Your task to perform on an android device: open app "Grab" Image 0: 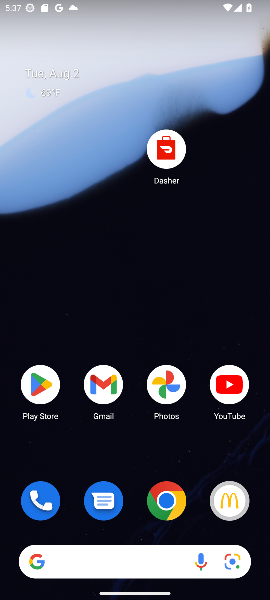
Step 0: click (44, 394)
Your task to perform on an android device: open app "Grab" Image 1: 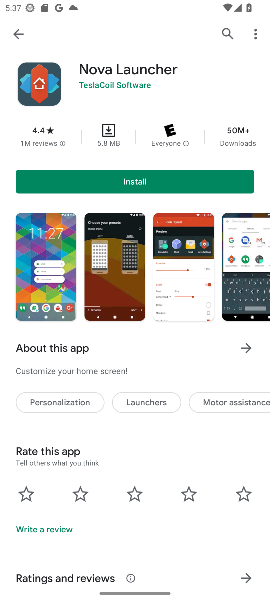
Step 1: click (216, 27)
Your task to perform on an android device: open app "Grab" Image 2: 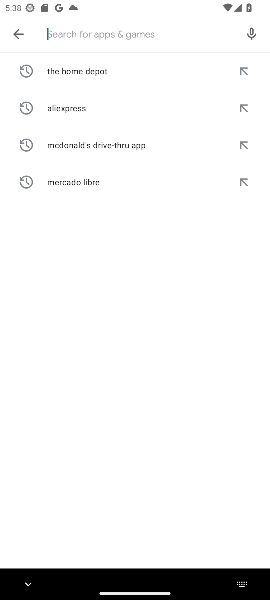
Step 2: type "Grab"
Your task to perform on an android device: open app "Grab" Image 3: 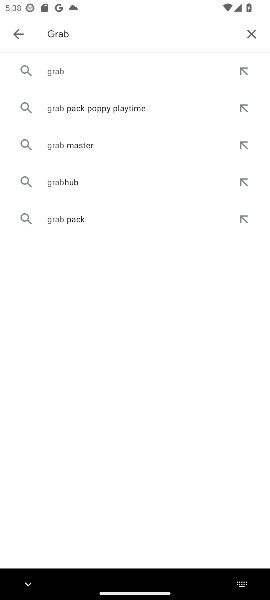
Step 3: click (58, 81)
Your task to perform on an android device: open app "Grab" Image 4: 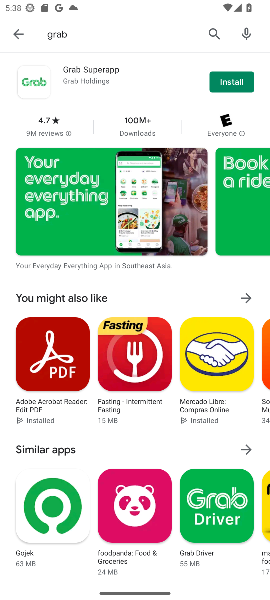
Step 4: task complete